Your task to perform on an android device: turn on airplane mode Image 0: 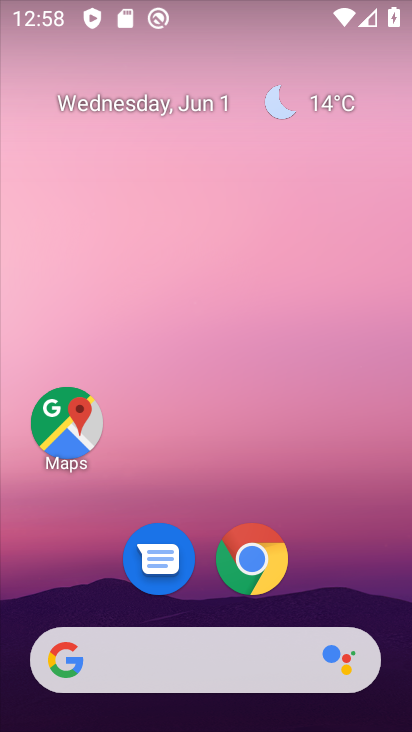
Step 0: drag from (390, 662) to (340, 180)
Your task to perform on an android device: turn on airplane mode Image 1: 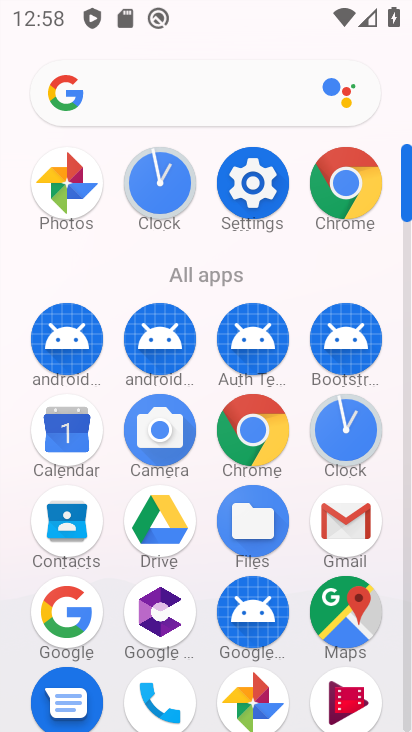
Step 1: click (262, 191)
Your task to perform on an android device: turn on airplane mode Image 2: 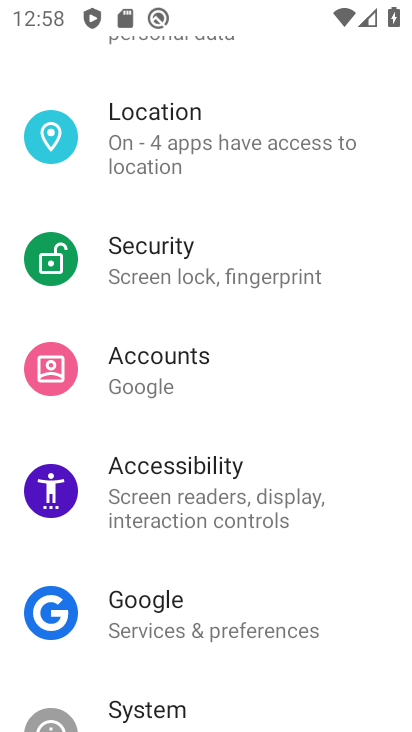
Step 2: drag from (310, 641) to (323, 702)
Your task to perform on an android device: turn on airplane mode Image 3: 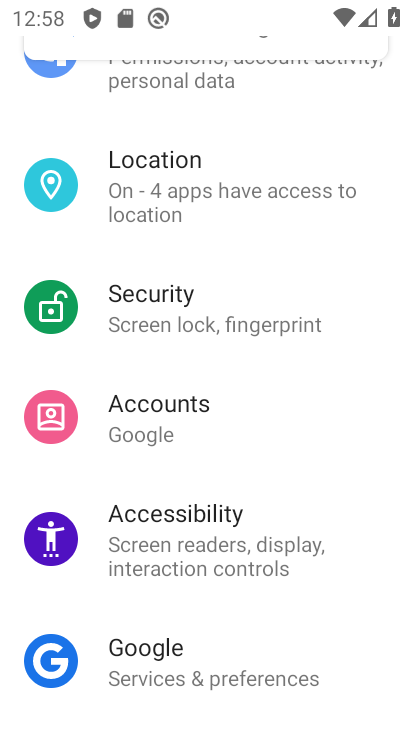
Step 3: drag from (286, 108) to (336, 632)
Your task to perform on an android device: turn on airplane mode Image 4: 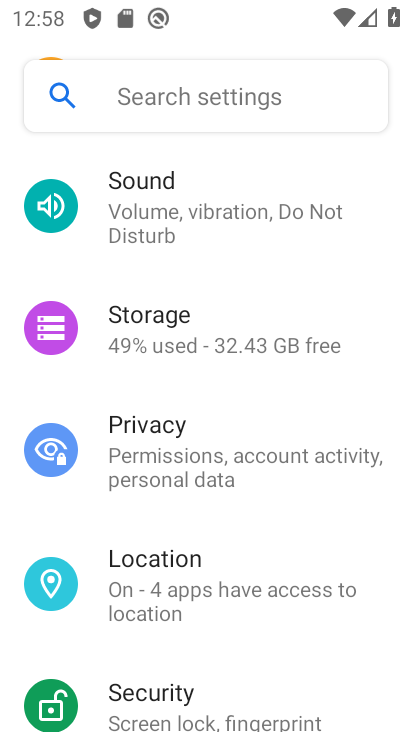
Step 4: drag from (307, 169) to (343, 670)
Your task to perform on an android device: turn on airplane mode Image 5: 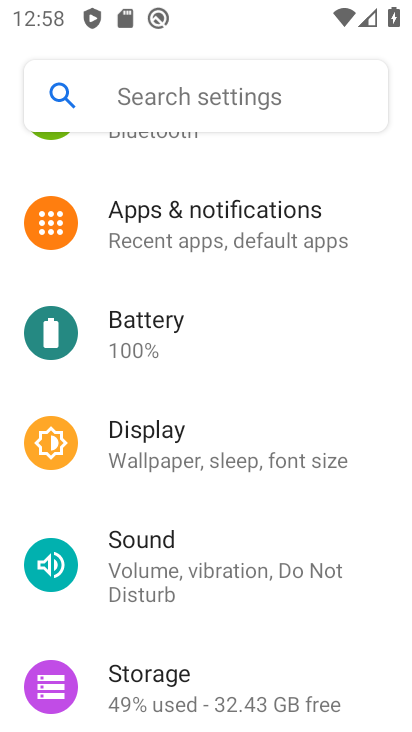
Step 5: drag from (284, 175) to (346, 518)
Your task to perform on an android device: turn on airplane mode Image 6: 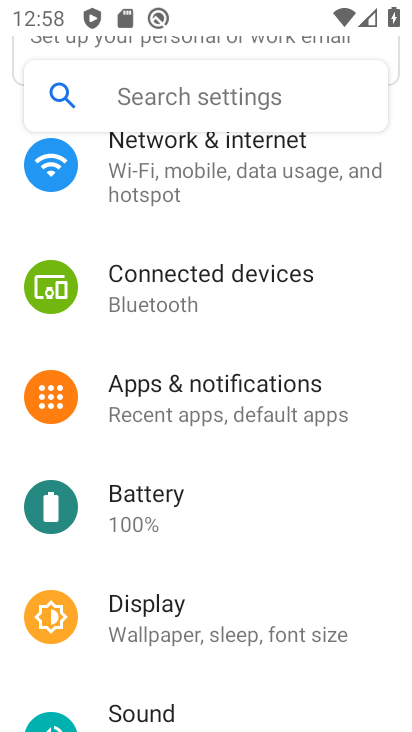
Step 6: click (219, 177)
Your task to perform on an android device: turn on airplane mode Image 7: 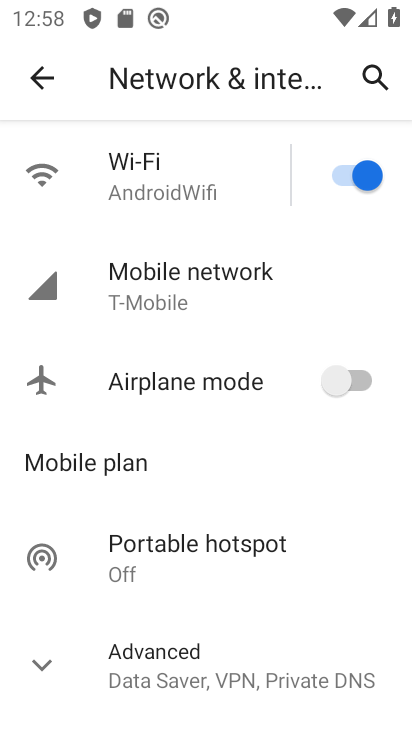
Step 7: click (347, 380)
Your task to perform on an android device: turn on airplane mode Image 8: 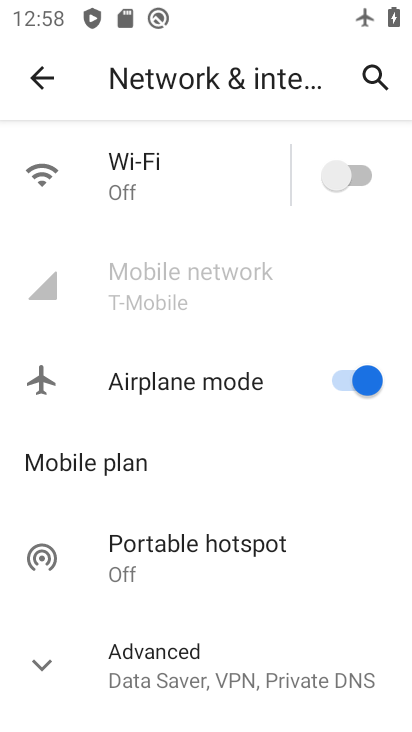
Step 8: task complete